Your task to perform on an android device: Open notification settings Image 0: 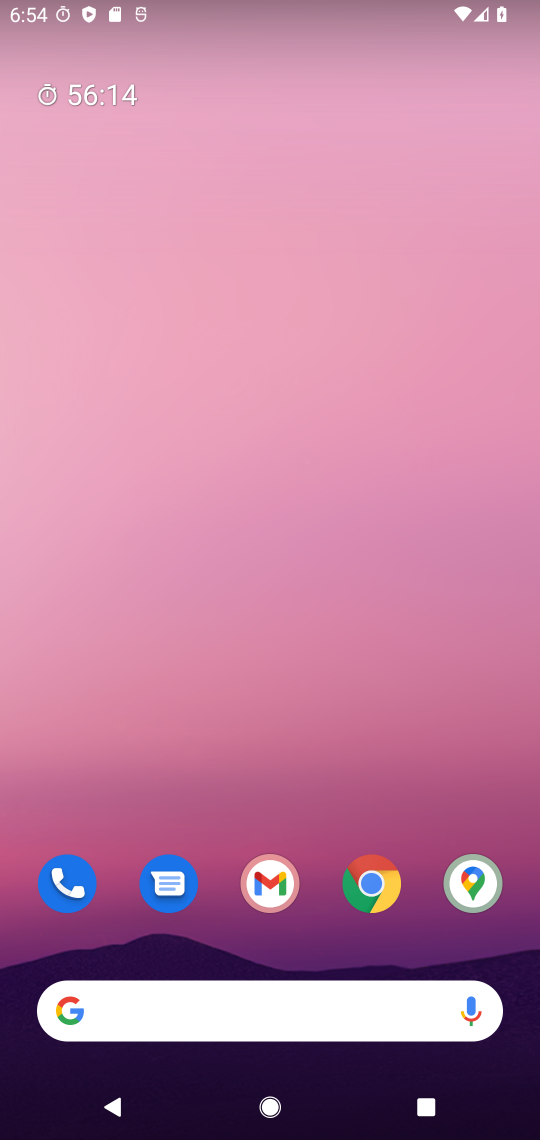
Step 0: drag from (298, 588) to (293, 109)
Your task to perform on an android device: Open notification settings Image 1: 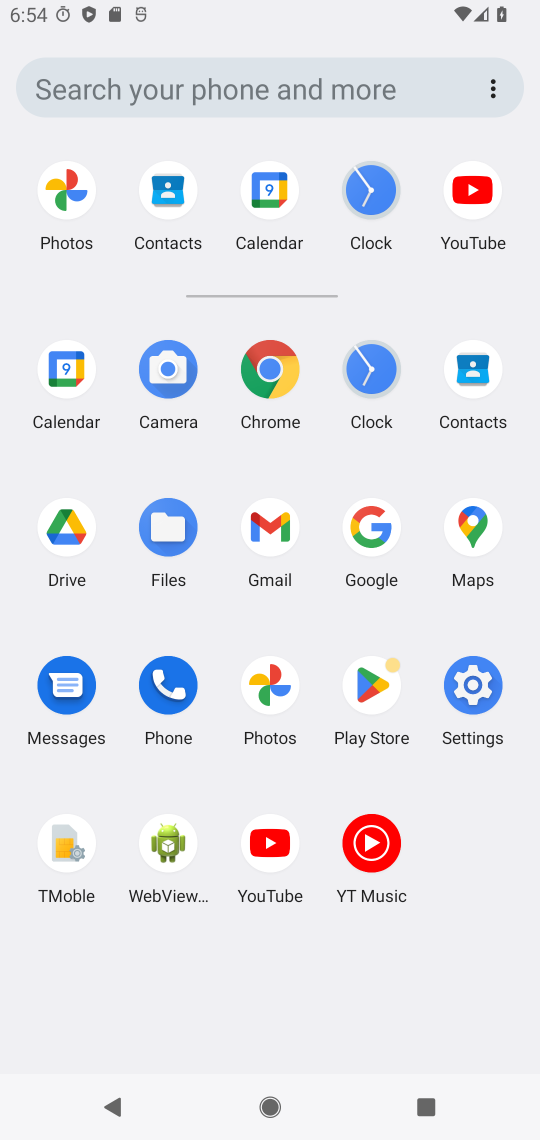
Step 1: click (472, 706)
Your task to perform on an android device: Open notification settings Image 2: 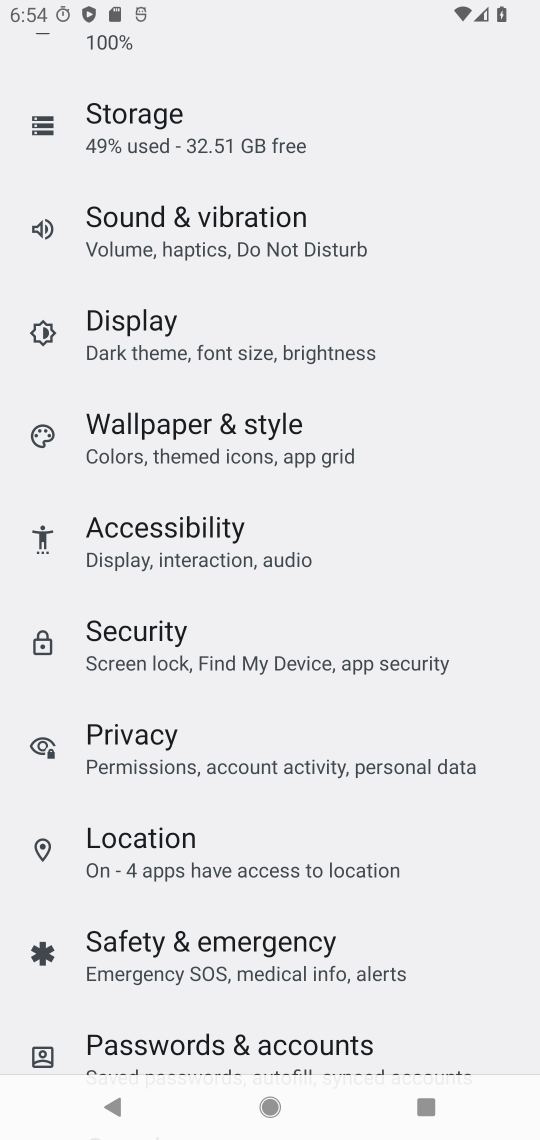
Step 2: drag from (253, 349) to (295, 858)
Your task to perform on an android device: Open notification settings Image 3: 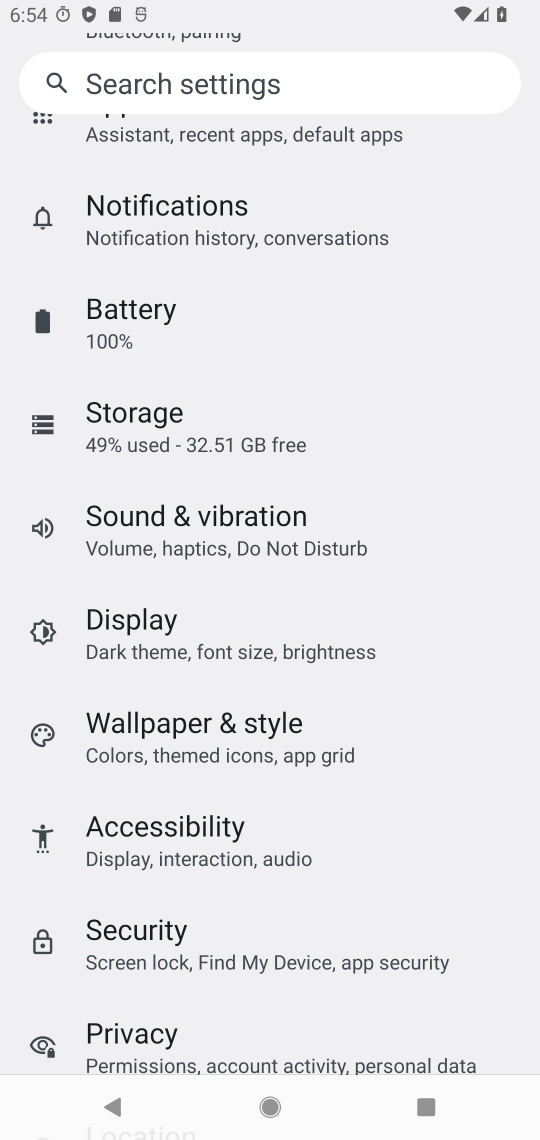
Step 3: click (220, 245)
Your task to perform on an android device: Open notification settings Image 4: 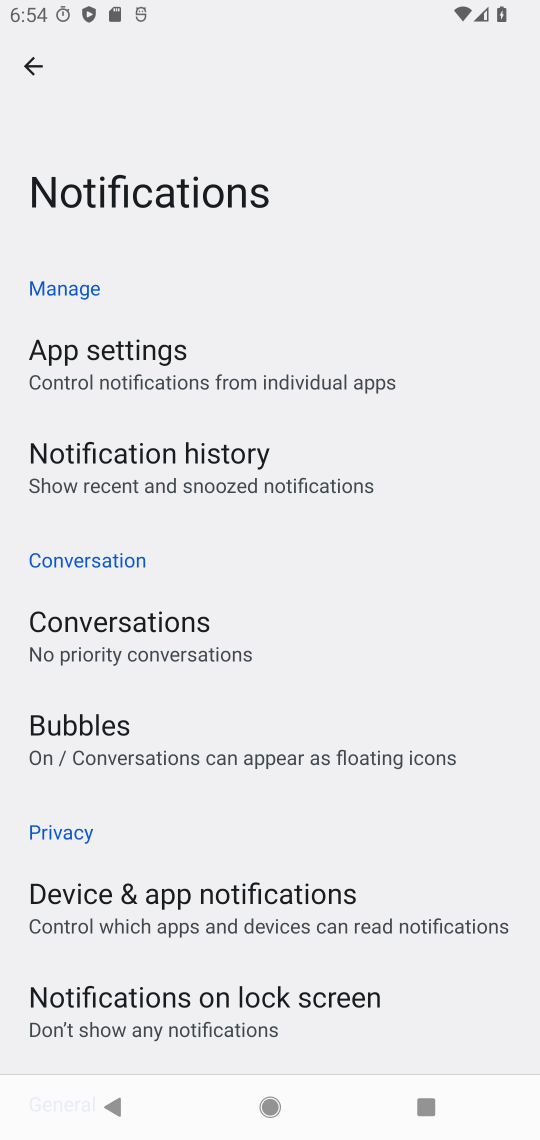
Step 4: task complete